Your task to perform on an android device: install app "Google Translate" Image 0: 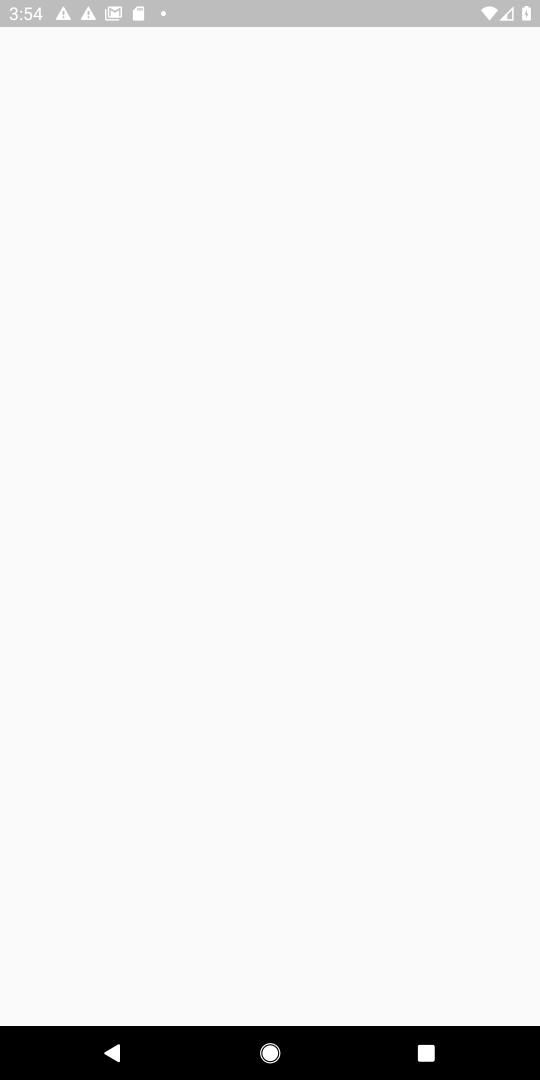
Step 0: press home button
Your task to perform on an android device: install app "Google Translate" Image 1: 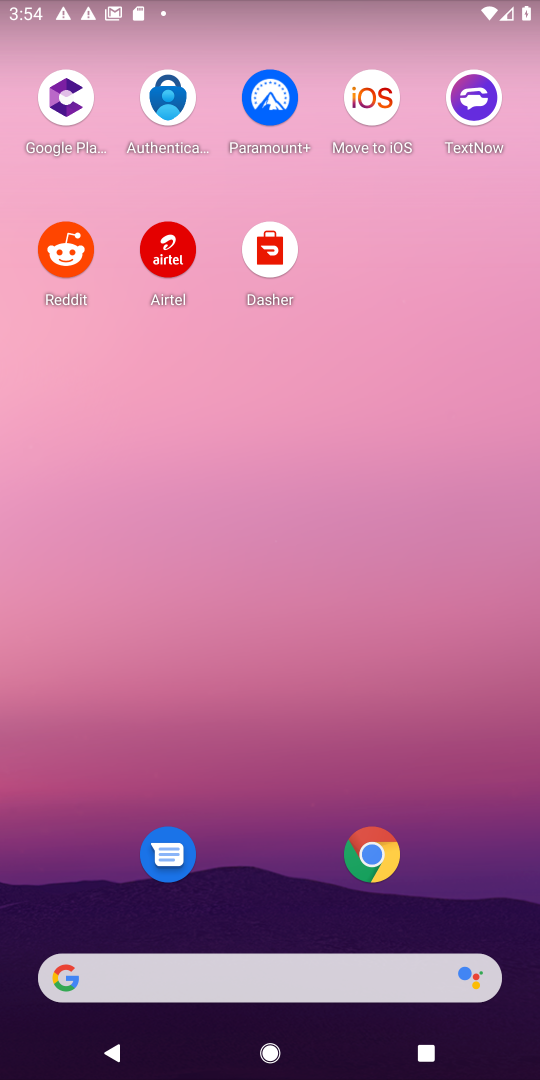
Step 1: drag from (273, 889) to (293, 85)
Your task to perform on an android device: install app "Google Translate" Image 2: 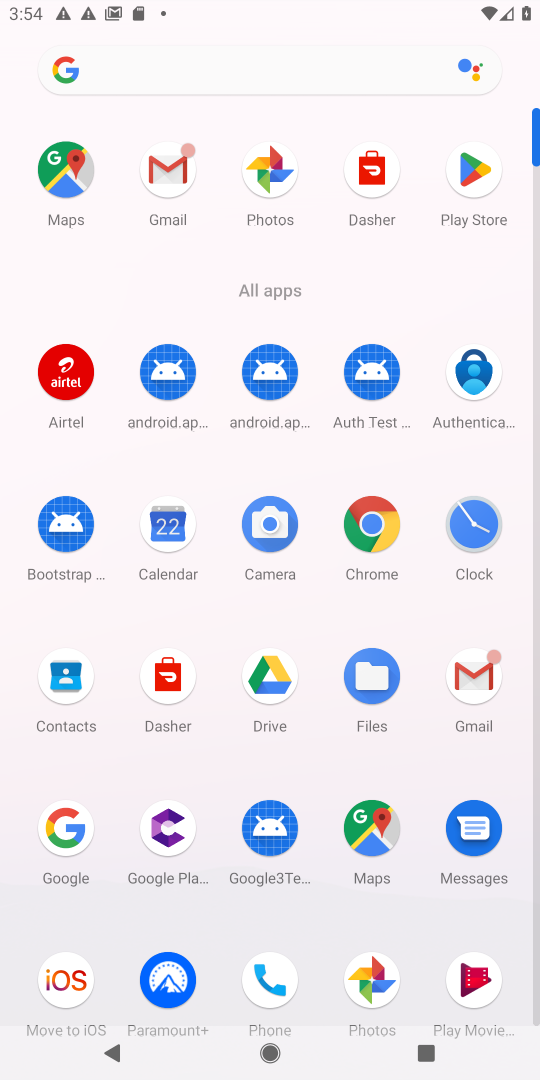
Step 2: click (475, 164)
Your task to perform on an android device: install app "Google Translate" Image 3: 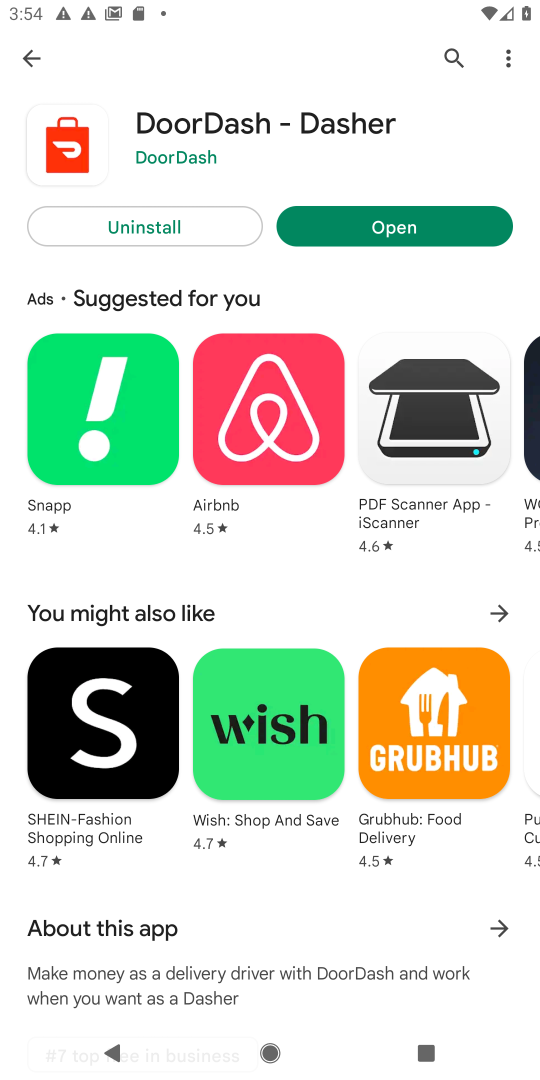
Step 3: click (449, 53)
Your task to perform on an android device: install app "Google Translate" Image 4: 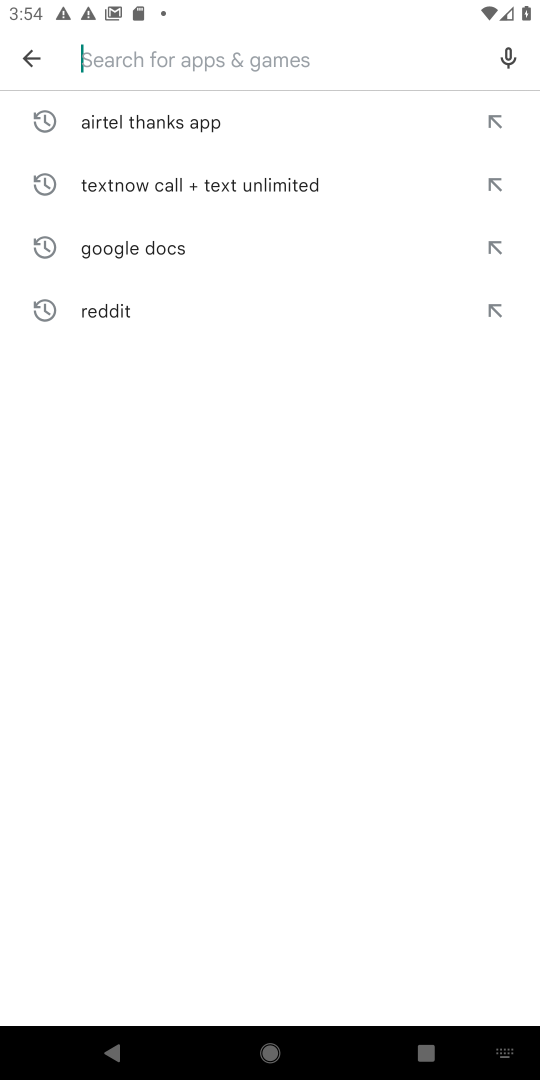
Step 4: type "Google Translate"
Your task to perform on an android device: install app "Google Translate" Image 5: 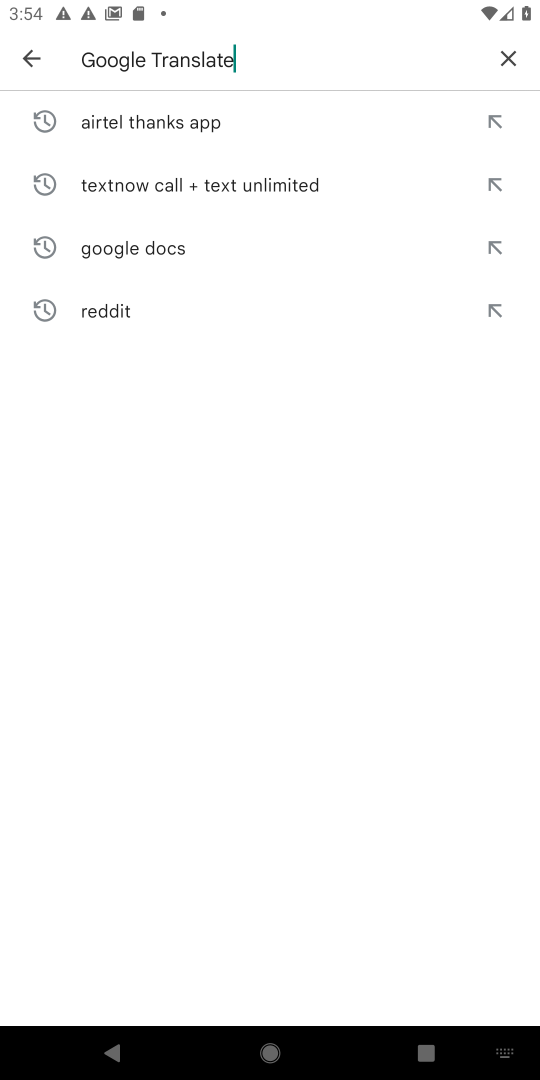
Step 5: type ""
Your task to perform on an android device: install app "Google Translate" Image 6: 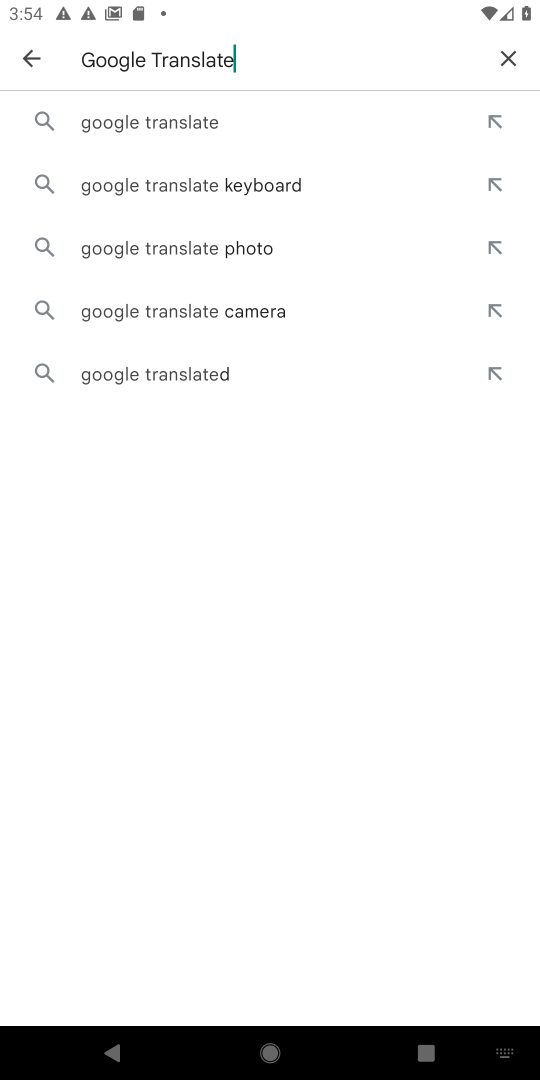
Step 6: click (181, 124)
Your task to perform on an android device: install app "Google Translate" Image 7: 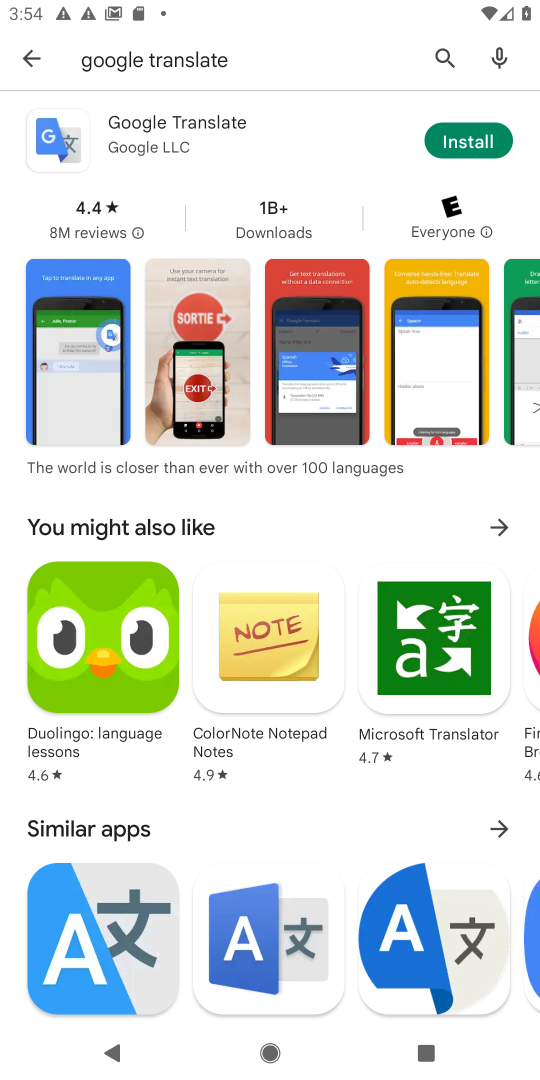
Step 7: click (457, 143)
Your task to perform on an android device: install app "Google Translate" Image 8: 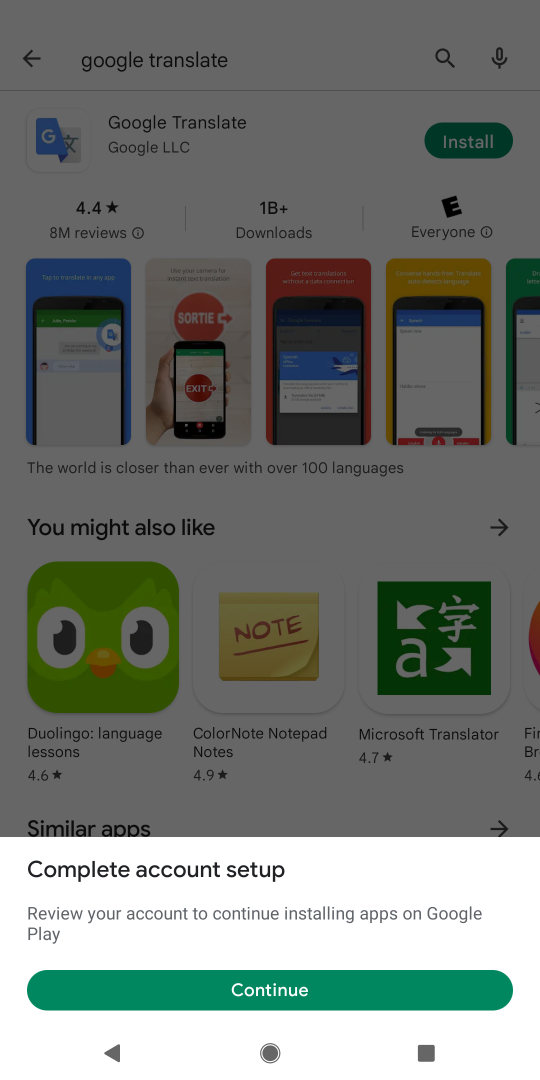
Step 8: click (295, 991)
Your task to perform on an android device: install app "Google Translate" Image 9: 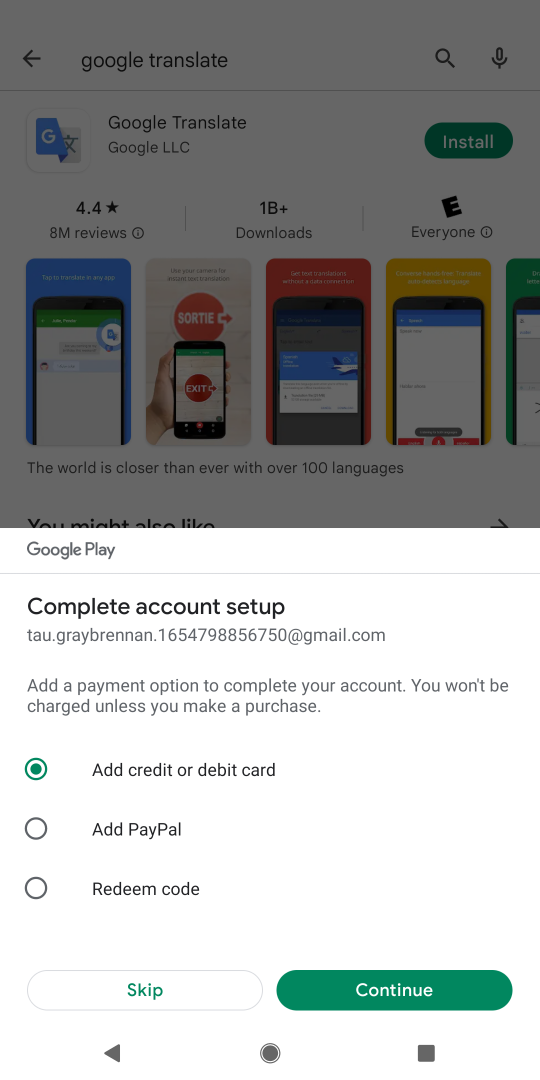
Step 9: click (182, 990)
Your task to perform on an android device: install app "Google Translate" Image 10: 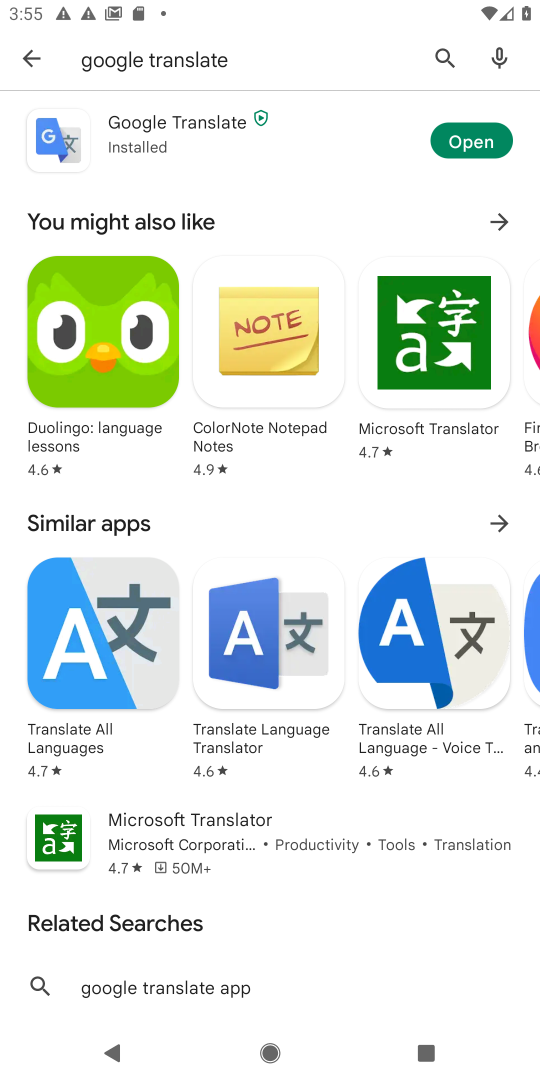
Step 10: task complete